Your task to perform on an android device: turn on airplane mode Image 0: 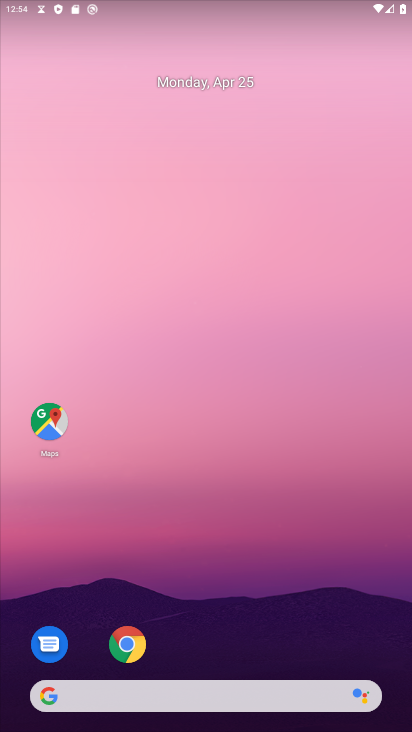
Step 0: drag from (347, 602) to (310, 1)
Your task to perform on an android device: turn on airplane mode Image 1: 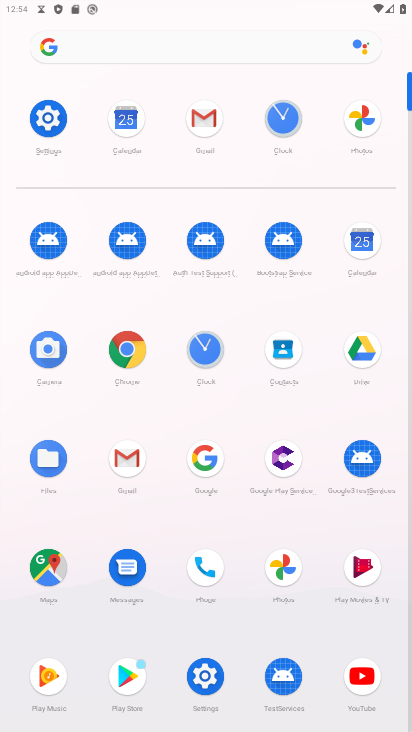
Step 1: click (47, 121)
Your task to perform on an android device: turn on airplane mode Image 2: 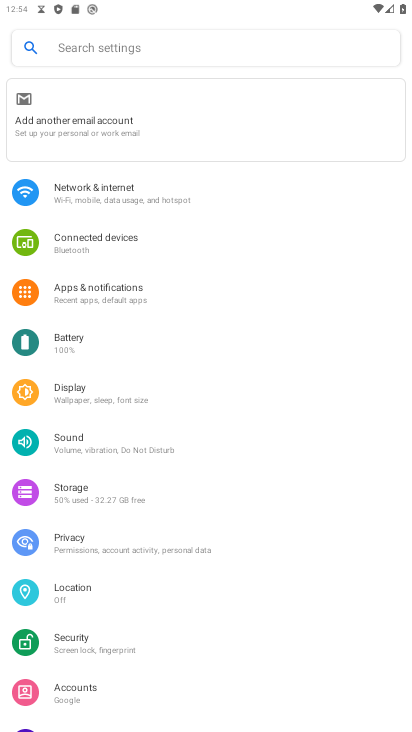
Step 2: click (91, 204)
Your task to perform on an android device: turn on airplane mode Image 3: 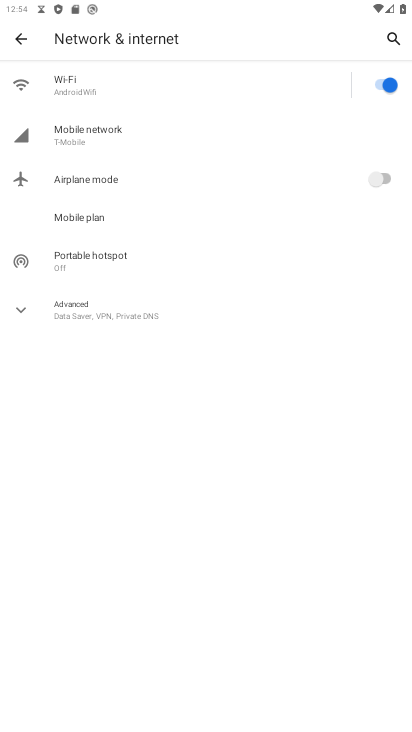
Step 3: click (382, 183)
Your task to perform on an android device: turn on airplane mode Image 4: 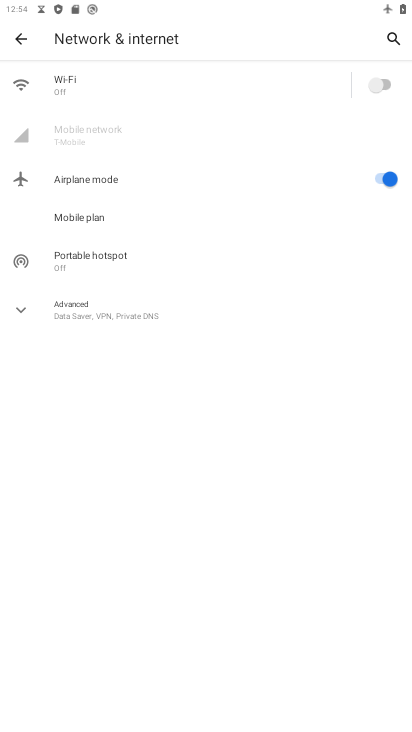
Step 4: task complete